Your task to perform on an android device: turn on priority inbox in the gmail app Image 0: 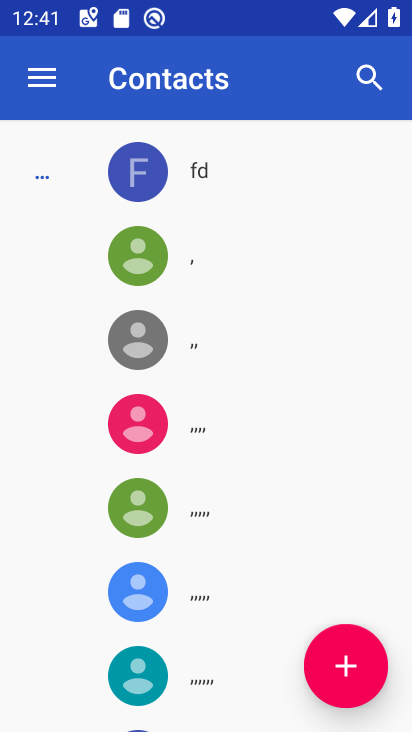
Step 0: press home button
Your task to perform on an android device: turn on priority inbox in the gmail app Image 1: 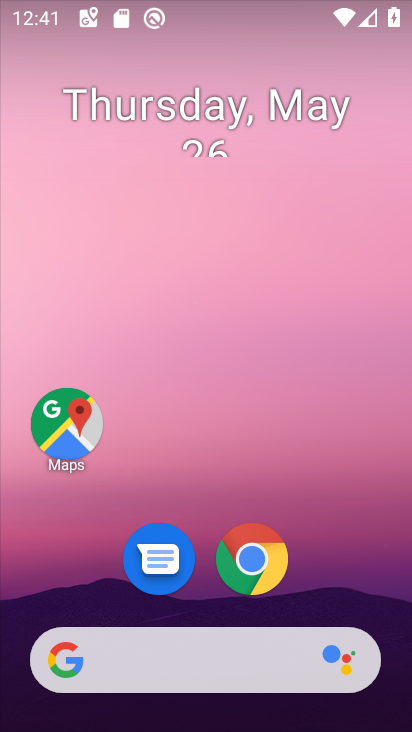
Step 1: drag from (350, 599) to (389, 4)
Your task to perform on an android device: turn on priority inbox in the gmail app Image 2: 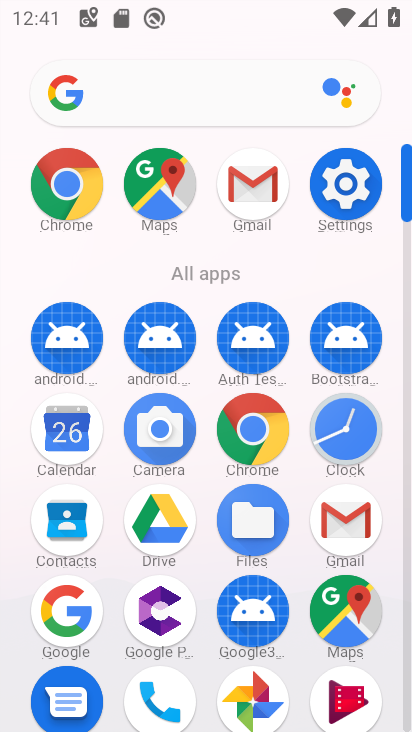
Step 2: click (252, 194)
Your task to perform on an android device: turn on priority inbox in the gmail app Image 3: 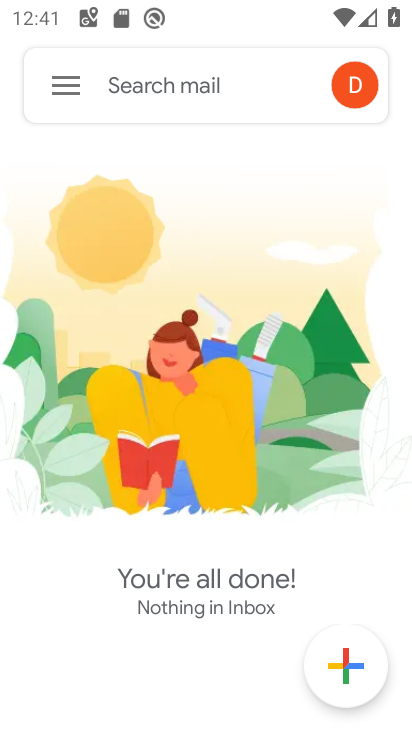
Step 3: click (64, 95)
Your task to perform on an android device: turn on priority inbox in the gmail app Image 4: 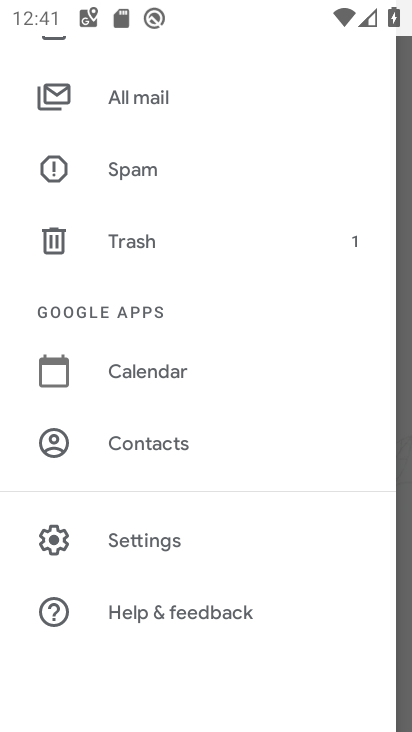
Step 4: click (120, 544)
Your task to perform on an android device: turn on priority inbox in the gmail app Image 5: 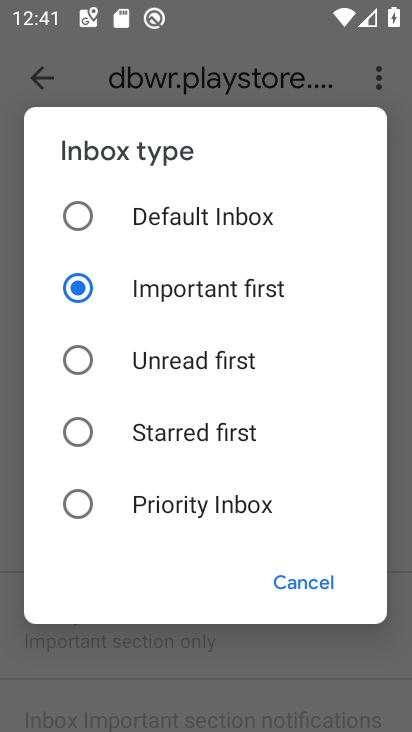
Step 5: click (78, 501)
Your task to perform on an android device: turn on priority inbox in the gmail app Image 6: 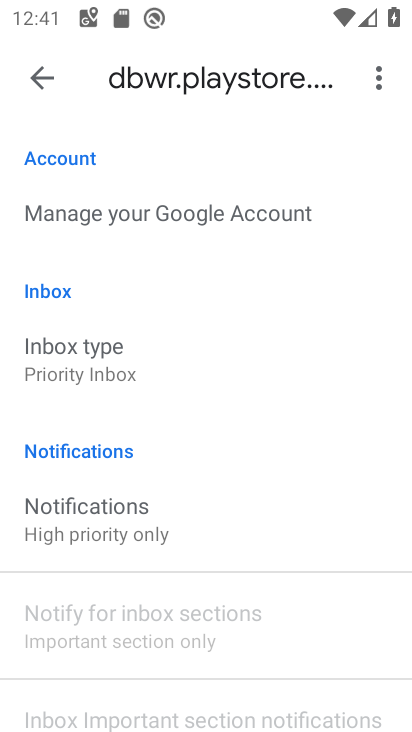
Step 6: task complete